Your task to perform on an android device: check data usage Image 0: 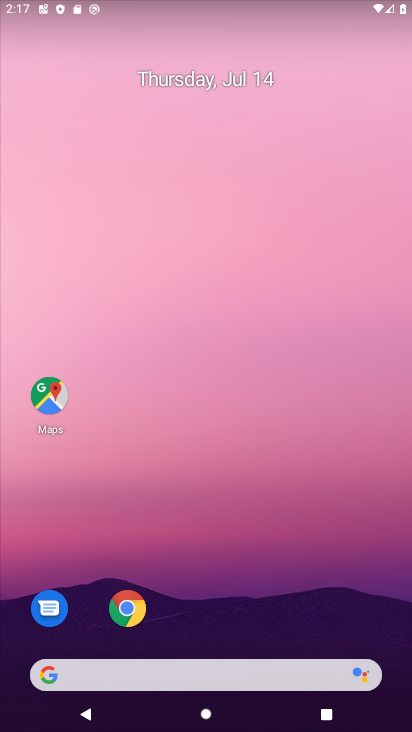
Step 0: drag from (43, 610) to (297, 72)
Your task to perform on an android device: check data usage Image 1: 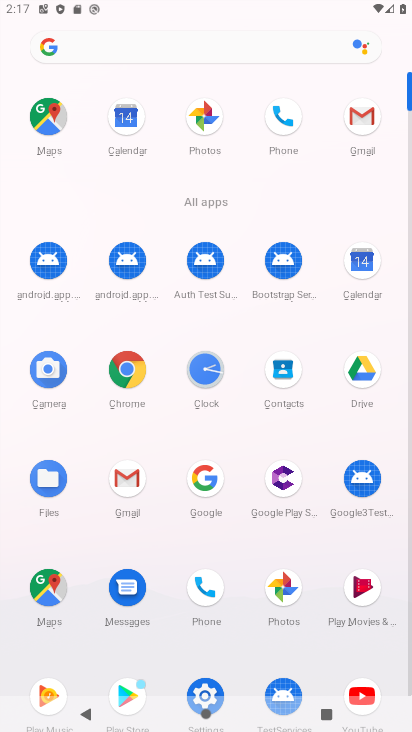
Step 1: click (207, 681)
Your task to perform on an android device: check data usage Image 2: 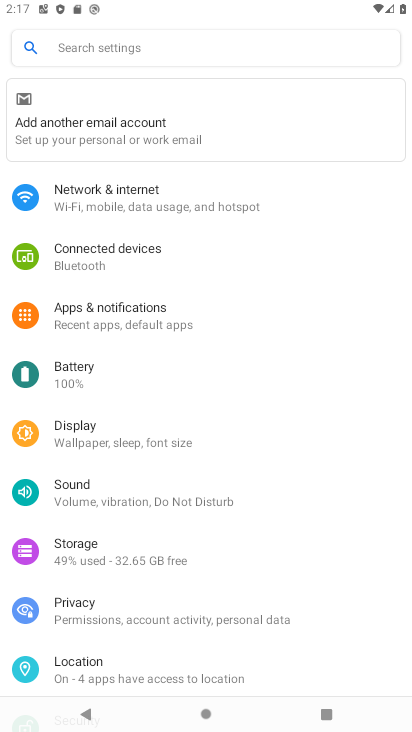
Step 2: click (81, 197)
Your task to perform on an android device: check data usage Image 3: 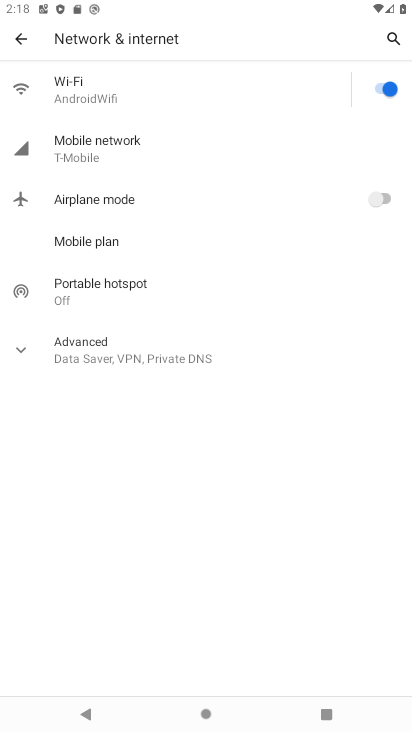
Step 3: click (104, 165)
Your task to perform on an android device: check data usage Image 4: 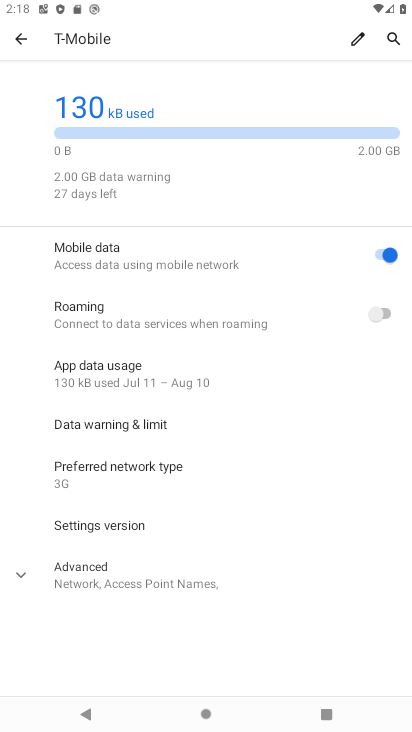
Step 4: task complete